Your task to perform on an android device: Go to Google Image 0: 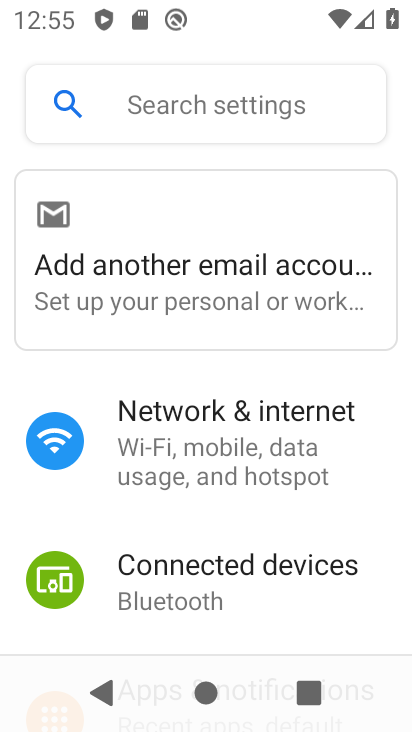
Step 0: press home button
Your task to perform on an android device: Go to Google Image 1: 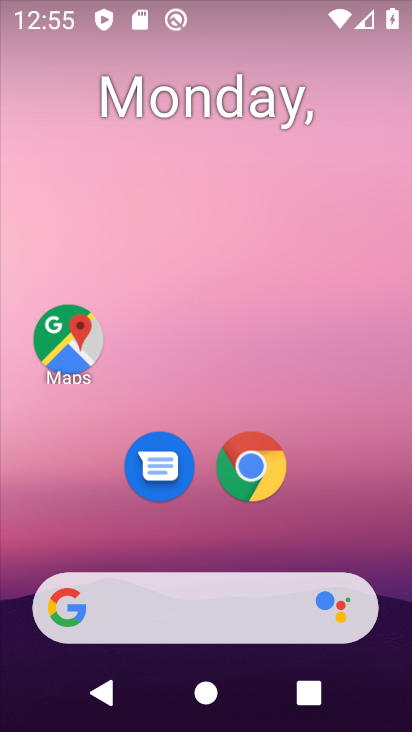
Step 1: drag from (230, 527) to (231, 240)
Your task to perform on an android device: Go to Google Image 2: 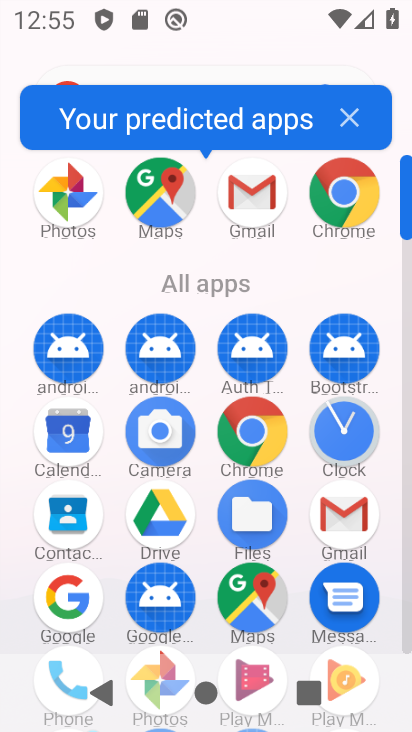
Step 2: click (66, 597)
Your task to perform on an android device: Go to Google Image 3: 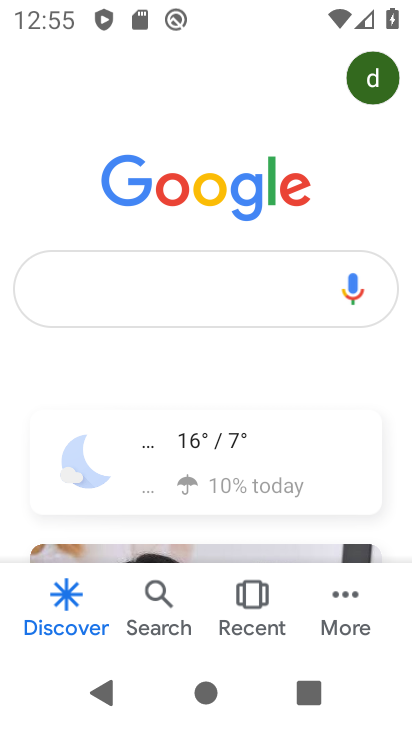
Step 3: task complete